Your task to perform on an android device: install app "Adobe Acrobat Reader: Edit PDF" Image 0: 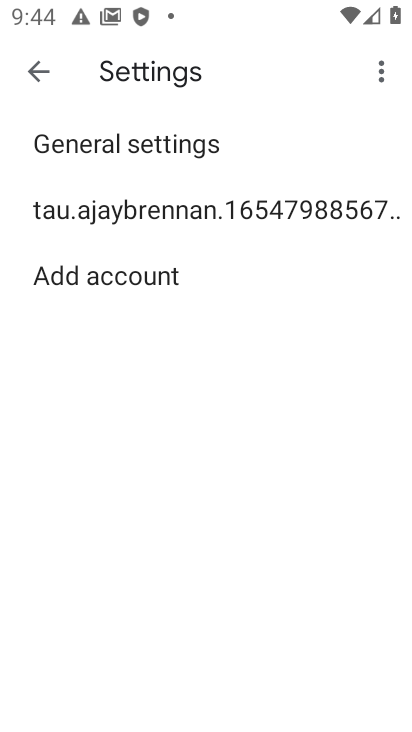
Step 0: press home button
Your task to perform on an android device: install app "Adobe Acrobat Reader: Edit PDF" Image 1: 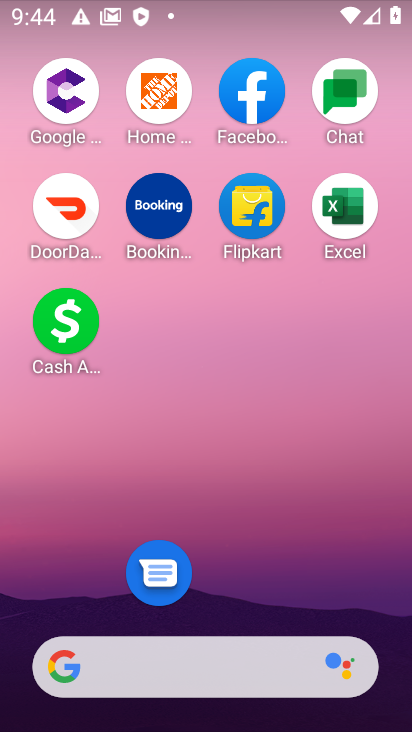
Step 1: drag from (203, 674) to (202, 430)
Your task to perform on an android device: install app "Adobe Acrobat Reader: Edit PDF" Image 2: 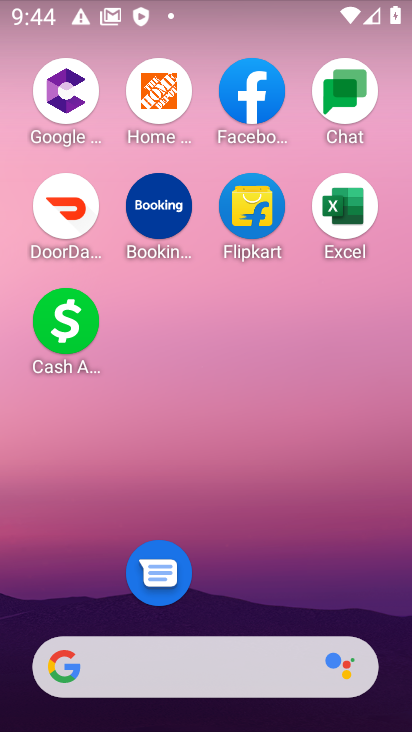
Step 2: drag from (246, 628) to (91, 5)
Your task to perform on an android device: install app "Adobe Acrobat Reader: Edit PDF" Image 3: 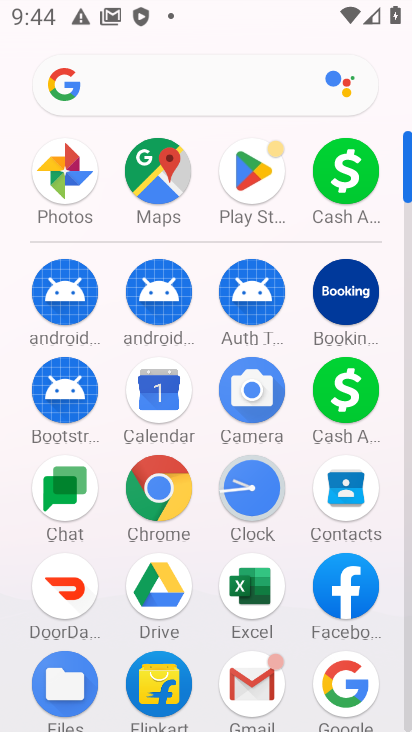
Step 3: click (260, 161)
Your task to perform on an android device: install app "Adobe Acrobat Reader: Edit PDF" Image 4: 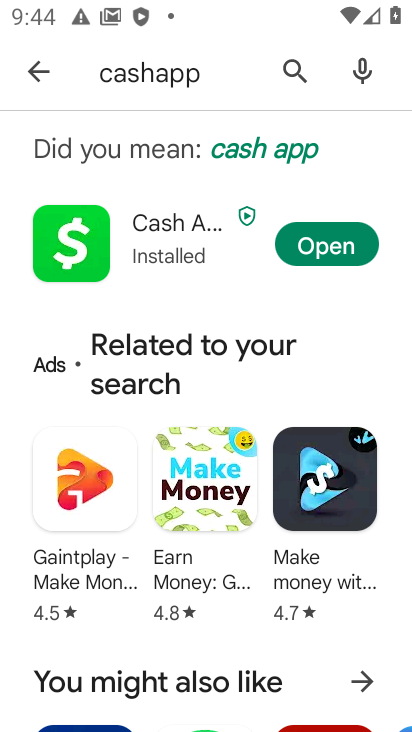
Step 4: click (288, 68)
Your task to perform on an android device: install app "Adobe Acrobat Reader: Edit PDF" Image 5: 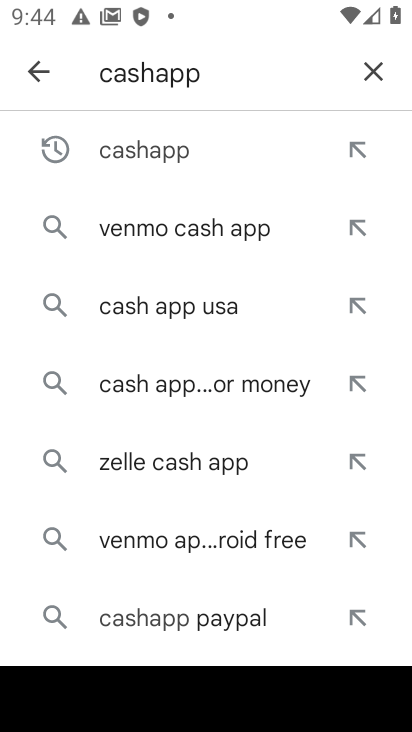
Step 5: click (375, 66)
Your task to perform on an android device: install app "Adobe Acrobat Reader: Edit PDF" Image 6: 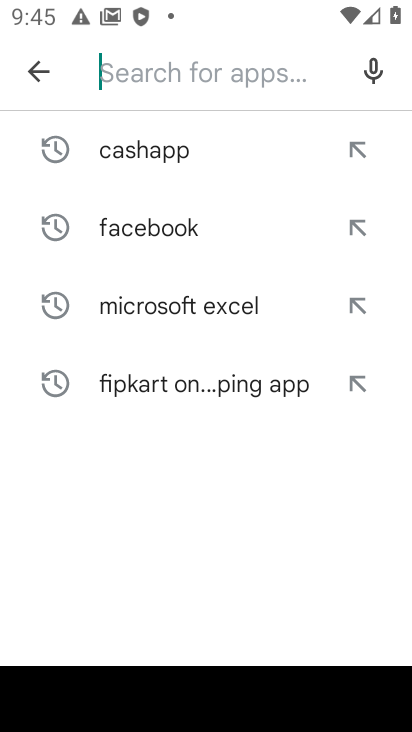
Step 6: type "adobe acrobat reader: edit pdf"
Your task to perform on an android device: install app "Adobe Acrobat Reader: Edit PDF" Image 7: 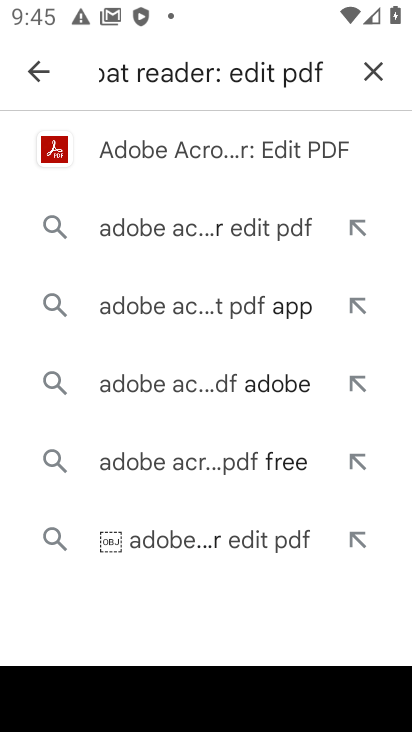
Step 7: click (213, 144)
Your task to perform on an android device: install app "Adobe Acrobat Reader: Edit PDF" Image 8: 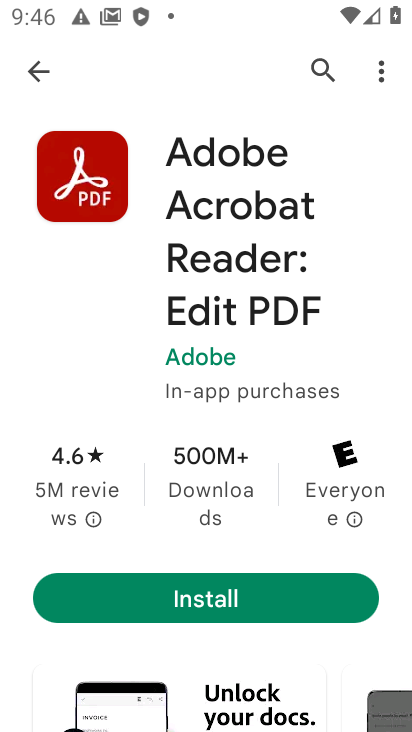
Step 8: click (260, 597)
Your task to perform on an android device: install app "Adobe Acrobat Reader: Edit PDF" Image 9: 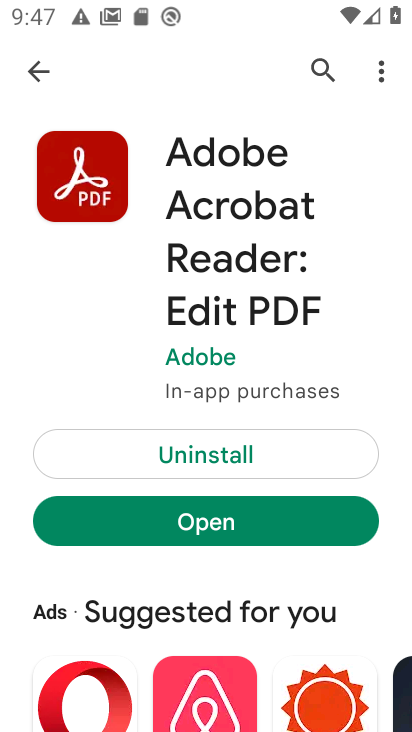
Step 9: task complete